Your task to perform on an android device: open app "Messenger Lite" (install if not already installed) and enter user name: "cataclysmic@outlook.com" and password: "victoriously" Image 0: 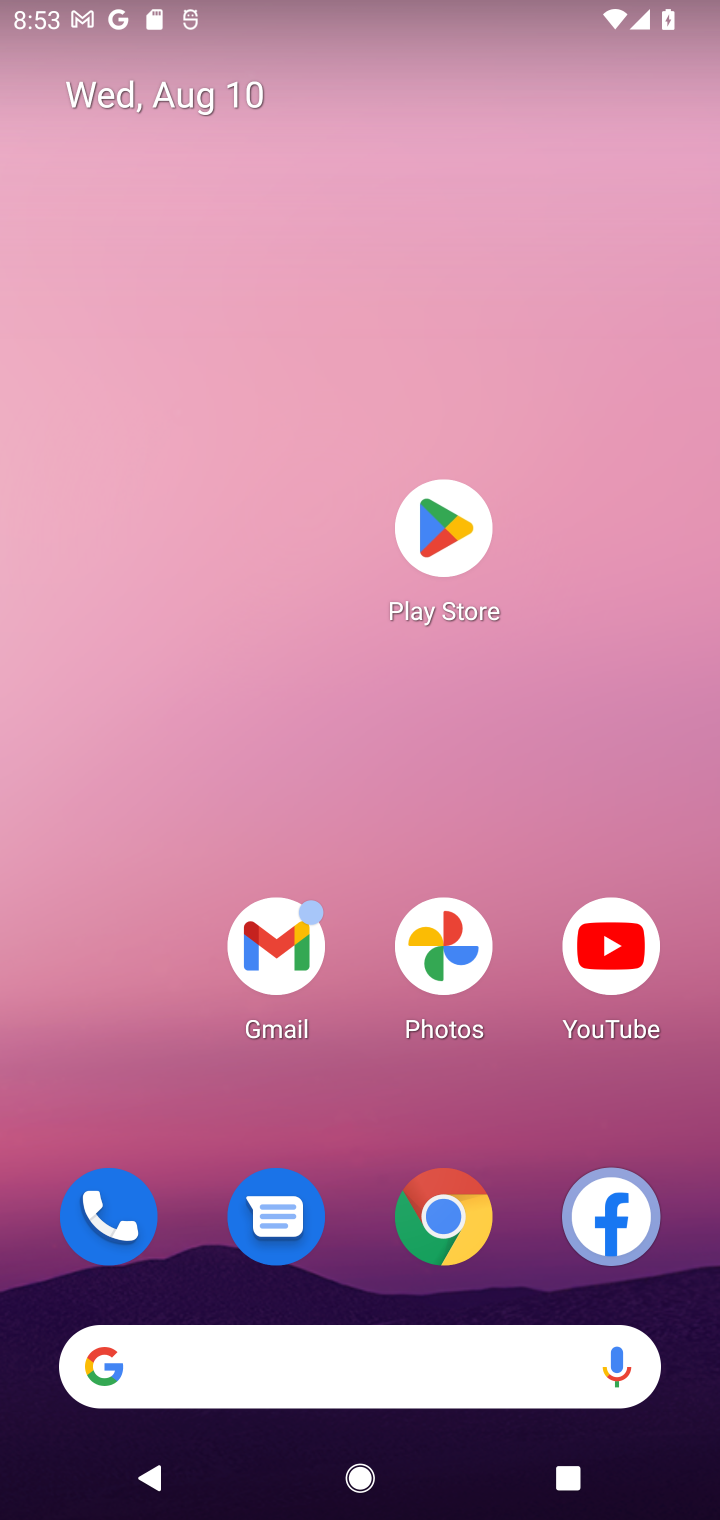
Step 0: press home button
Your task to perform on an android device: open app "Messenger Lite" (install if not already installed) and enter user name: "cataclysmic@outlook.com" and password: "victoriously" Image 1: 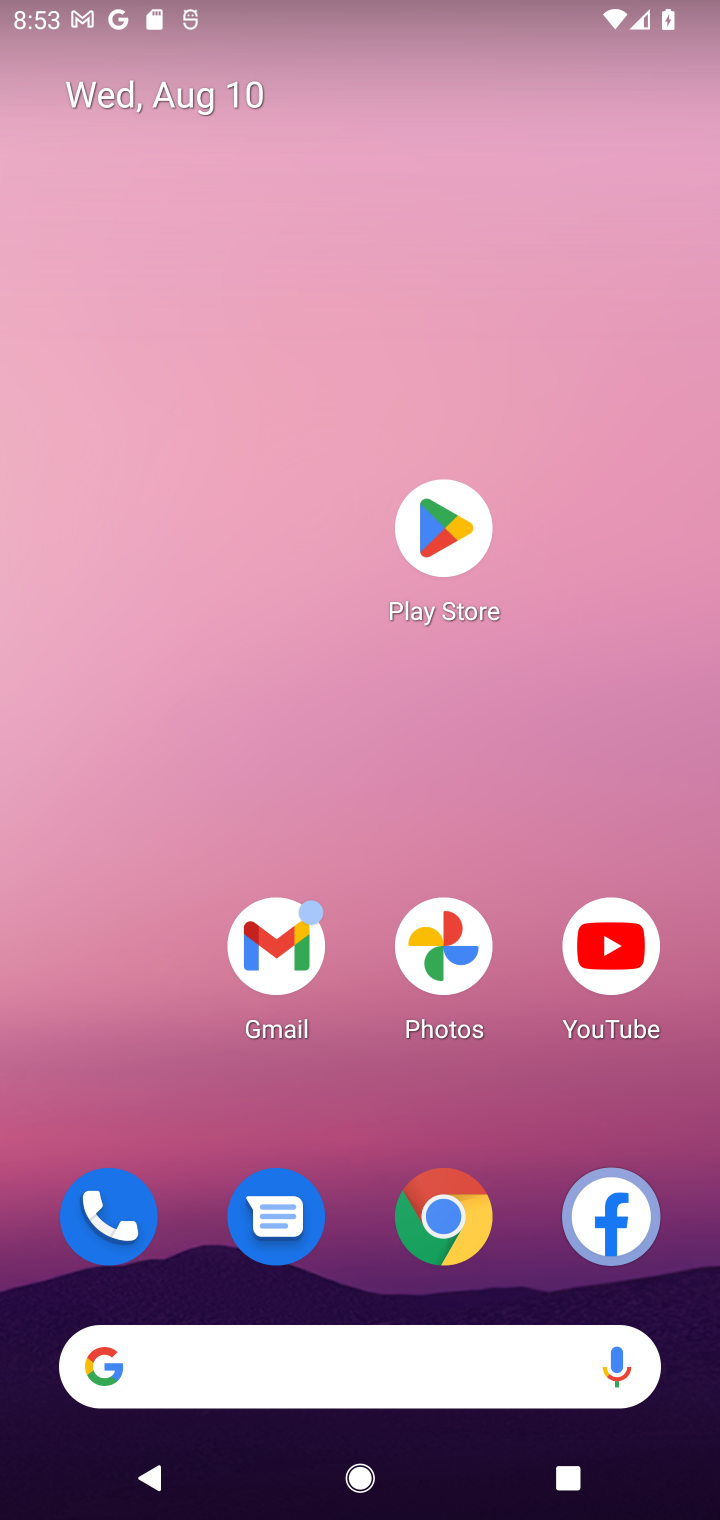
Step 1: click (450, 526)
Your task to perform on an android device: open app "Messenger Lite" (install if not already installed) and enter user name: "cataclysmic@outlook.com" and password: "victoriously" Image 2: 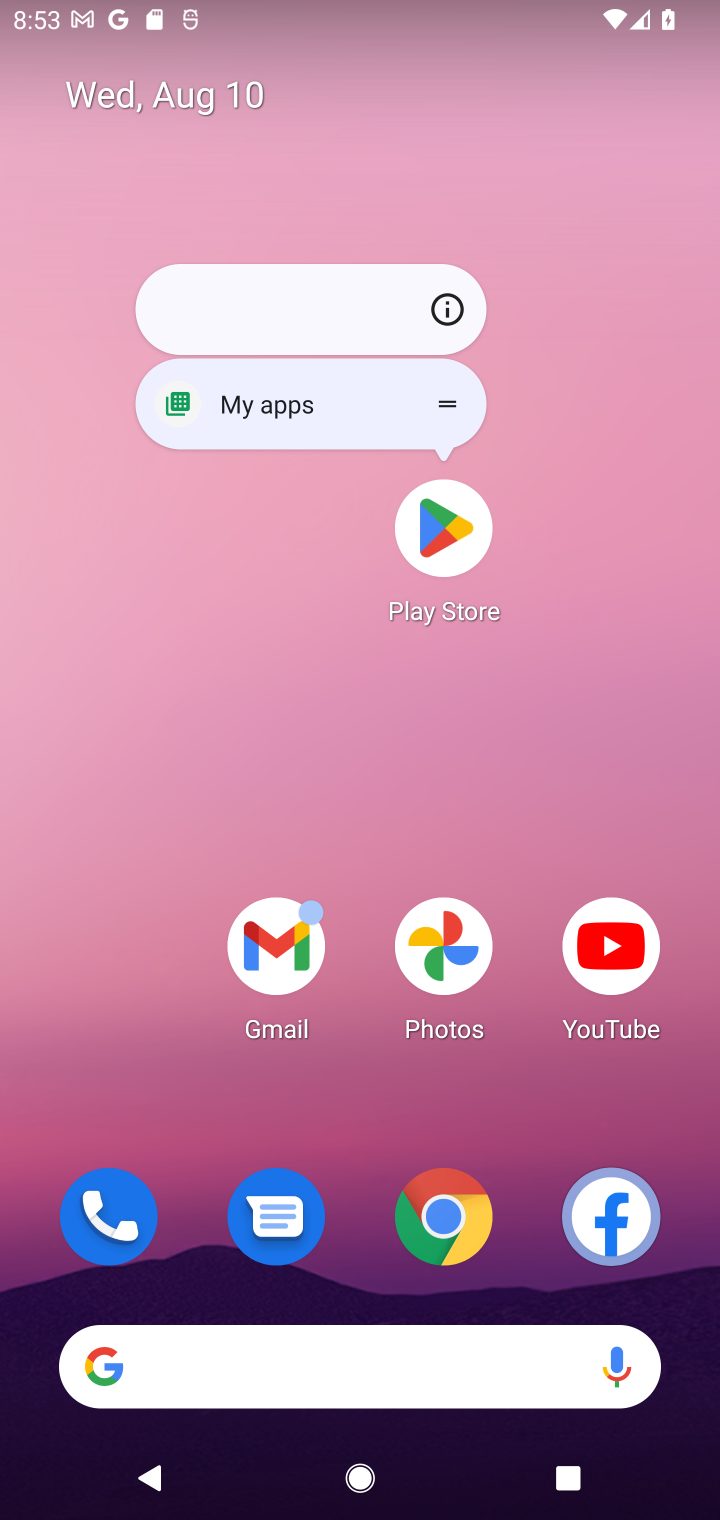
Step 2: click (450, 533)
Your task to perform on an android device: open app "Messenger Lite" (install if not already installed) and enter user name: "cataclysmic@outlook.com" and password: "victoriously" Image 3: 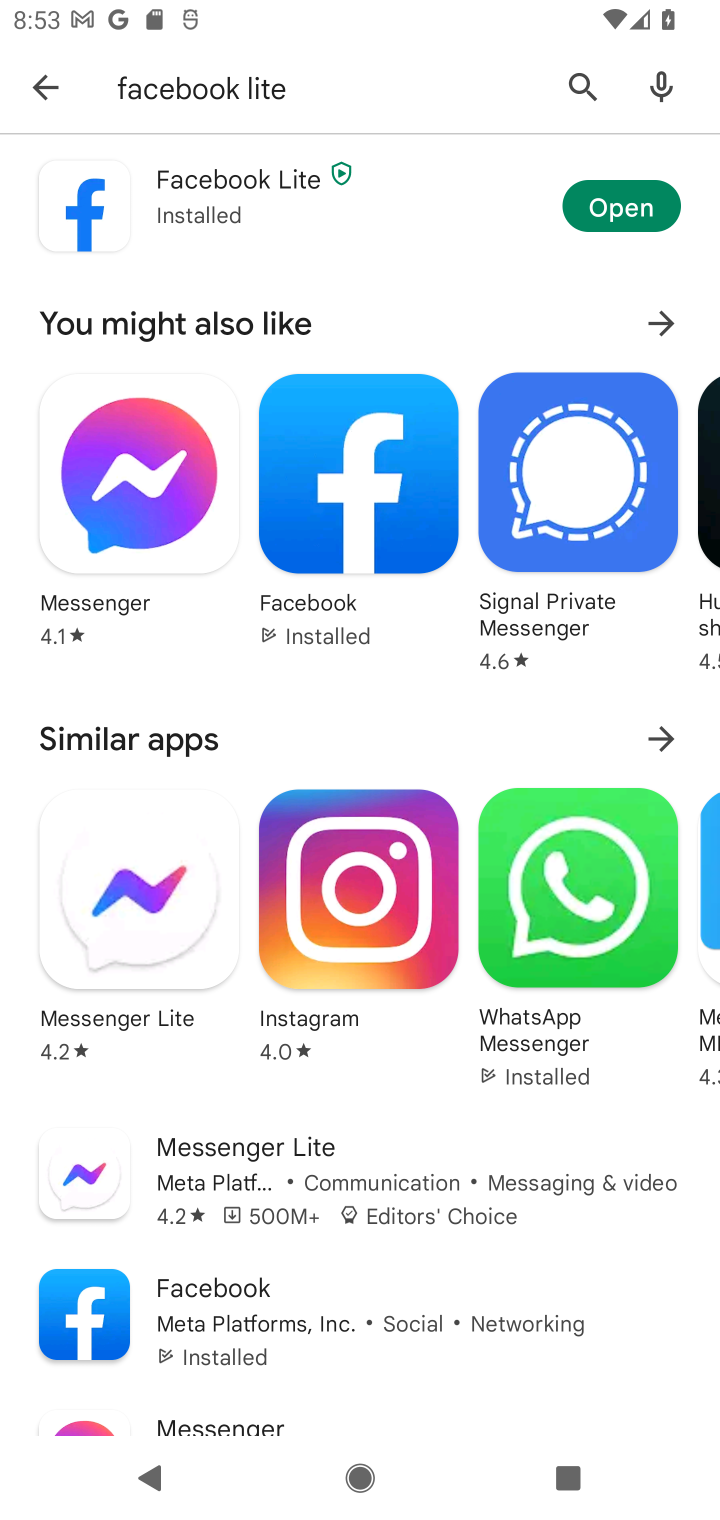
Step 3: click (572, 68)
Your task to perform on an android device: open app "Messenger Lite" (install if not already installed) and enter user name: "cataclysmic@outlook.com" and password: "victoriously" Image 4: 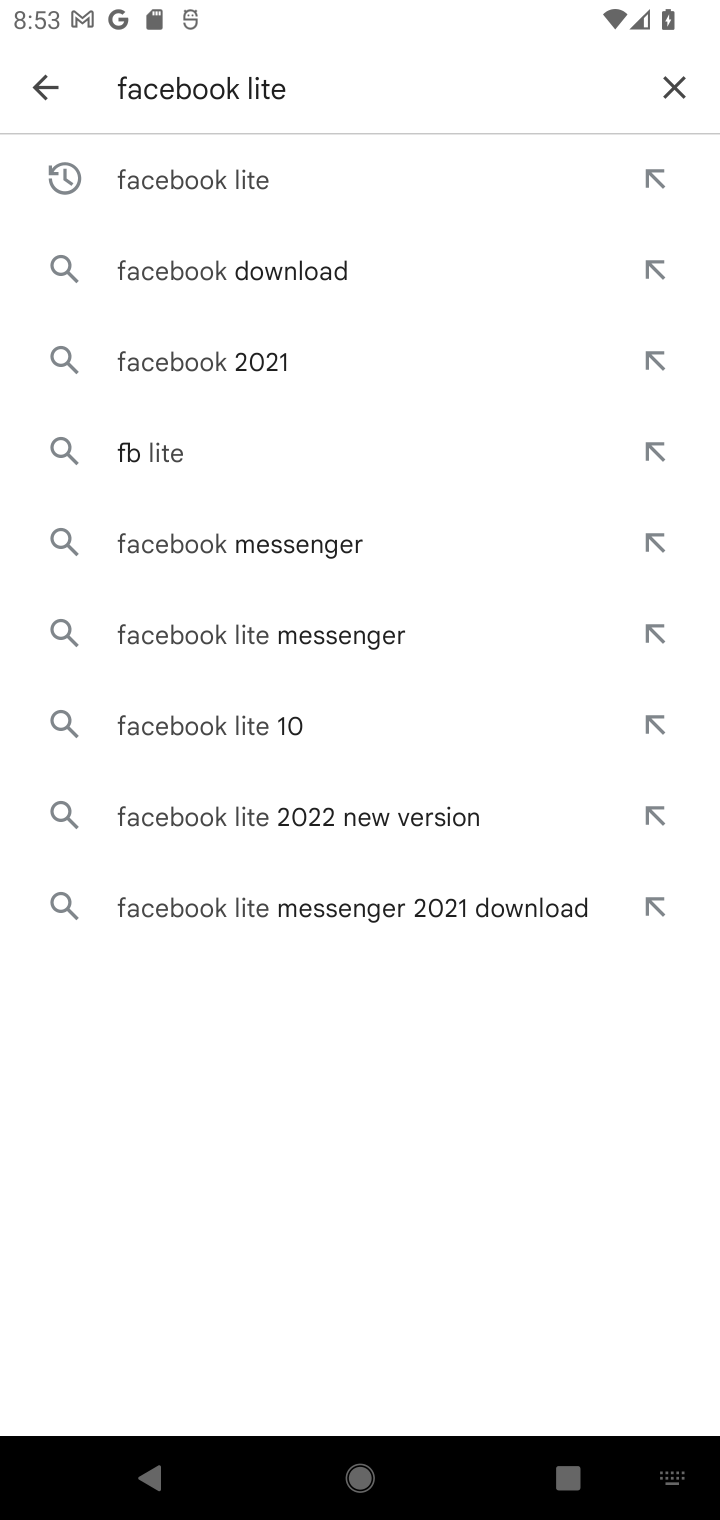
Step 4: click (668, 82)
Your task to perform on an android device: open app "Messenger Lite" (install if not already installed) and enter user name: "cataclysmic@outlook.com" and password: "victoriously" Image 5: 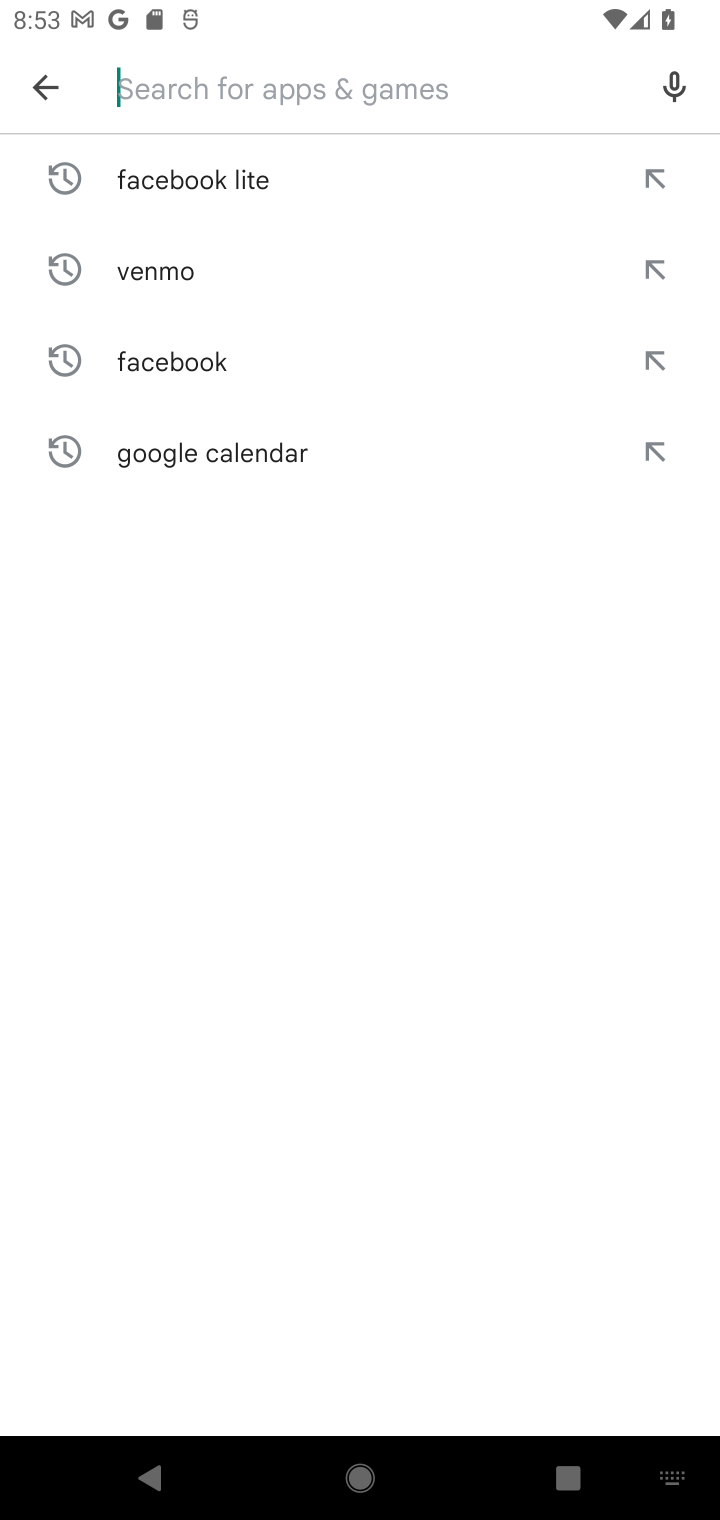
Step 5: type "Messenger Lite"
Your task to perform on an android device: open app "Messenger Lite" (install if not already installed) and enter user name: "cataclysmic@outlook.com" and password: "victoriously" Image 6: 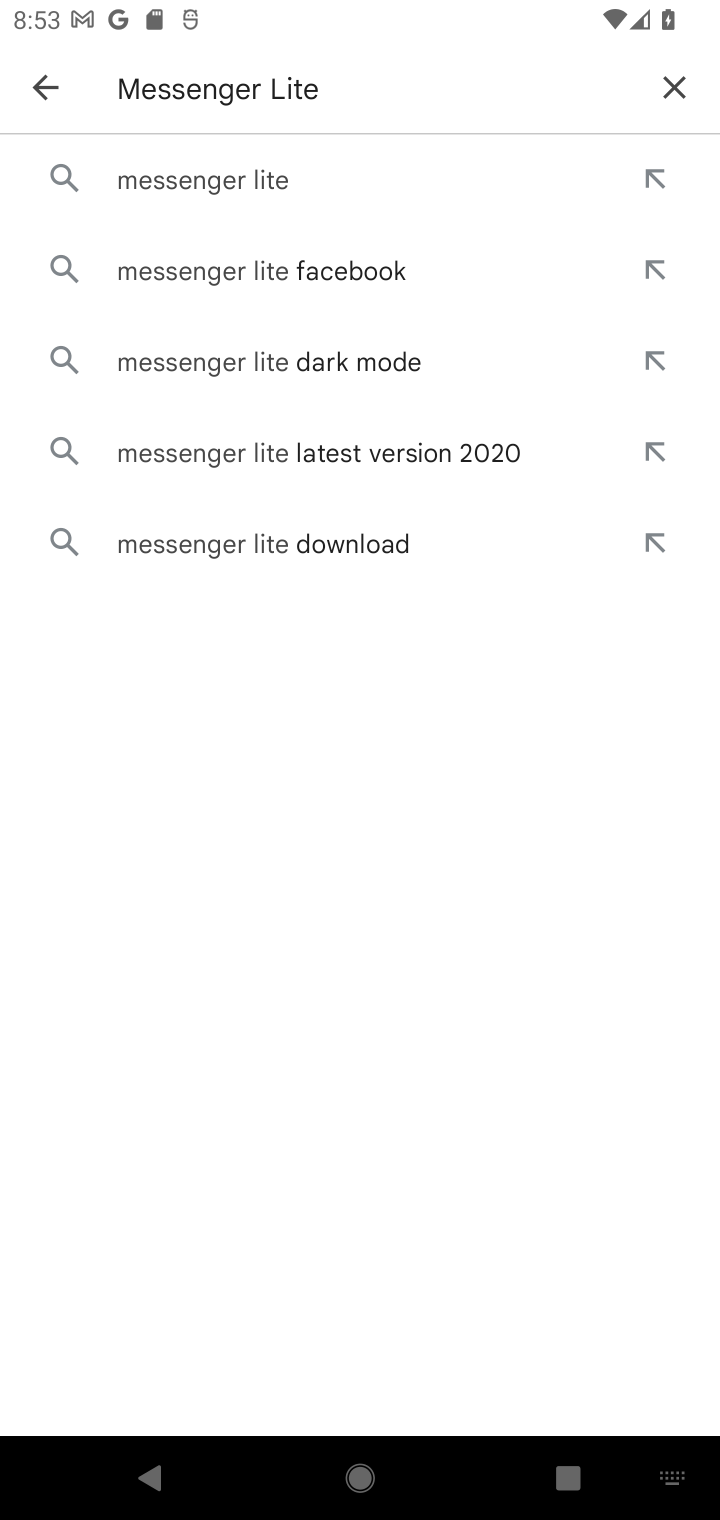
Step 6: click (269, 176)
Your task to perform on an android device: open app "Messenger Lite" (install if not already installed) and enter user name: "cataclysmic@outlook.com" and password: "victoriously" Image 7: 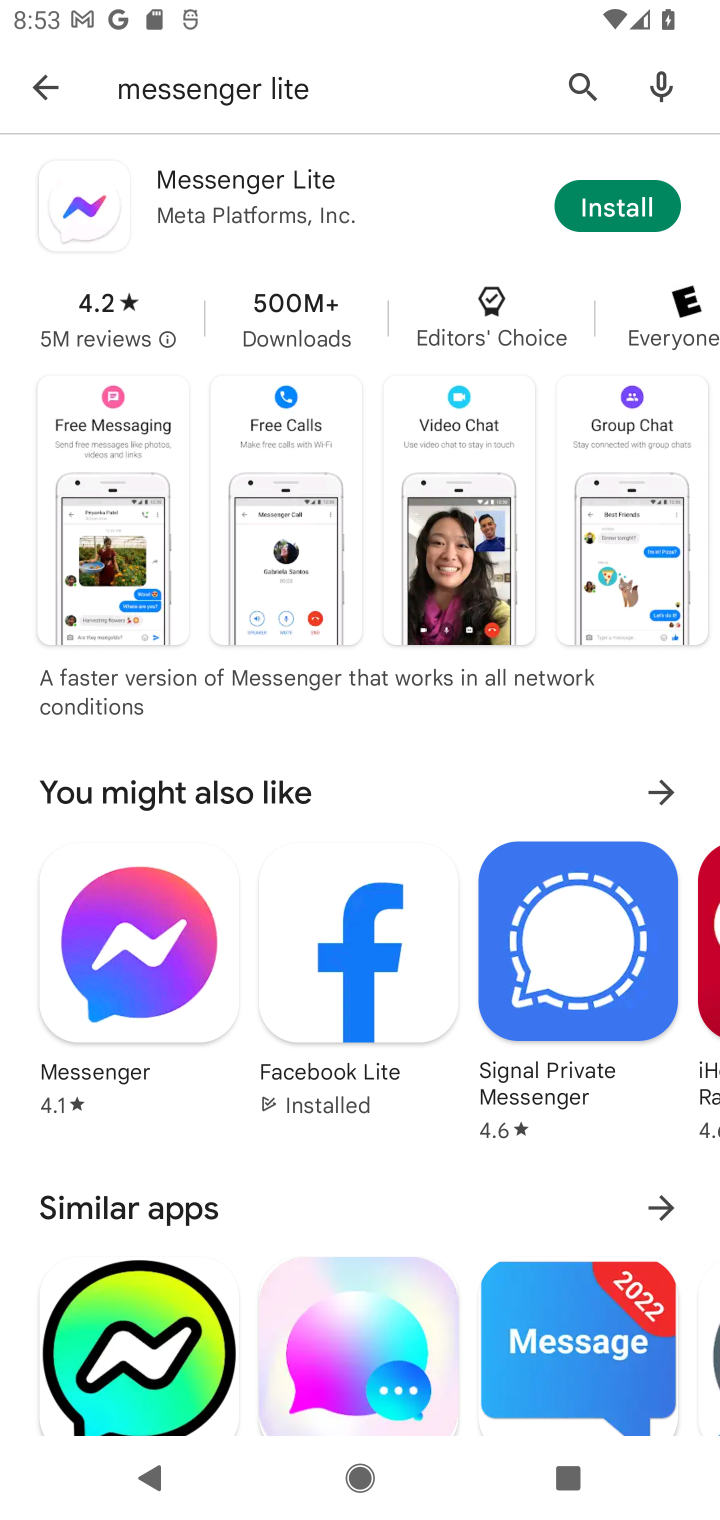
Step 7: click (585, 205)
Your task to perform on an android device: open app "Messenger Lite" (install if not already installed) and enter user name: "cataclysmic@outlook.com" and password: "victoriously" Image 8: 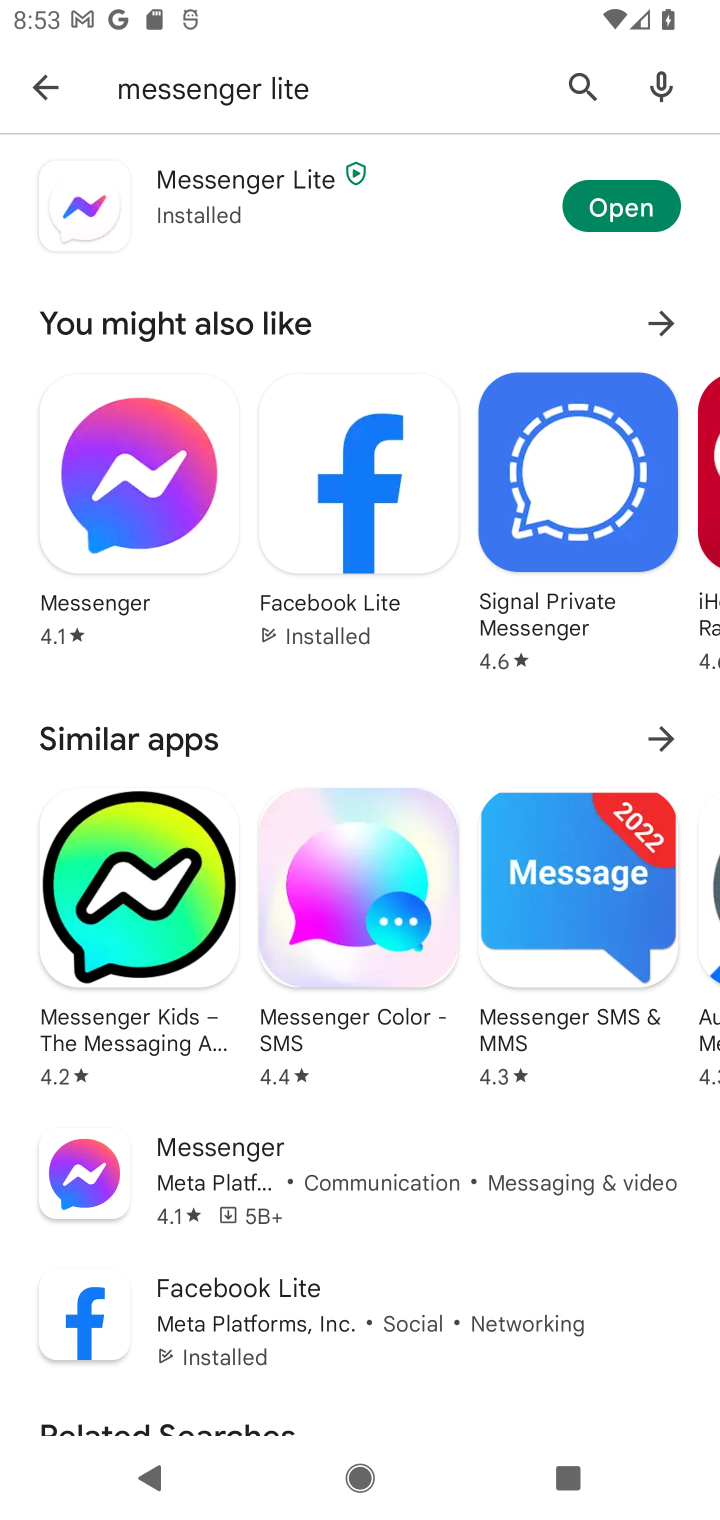
Step 8: click (597, 215)
Your task to perform on an android device: open app "Messenger Lite" (install if not already installed) and enter user name: "cataclysmic@outlook.com" and password: "victoriously" Image 9: 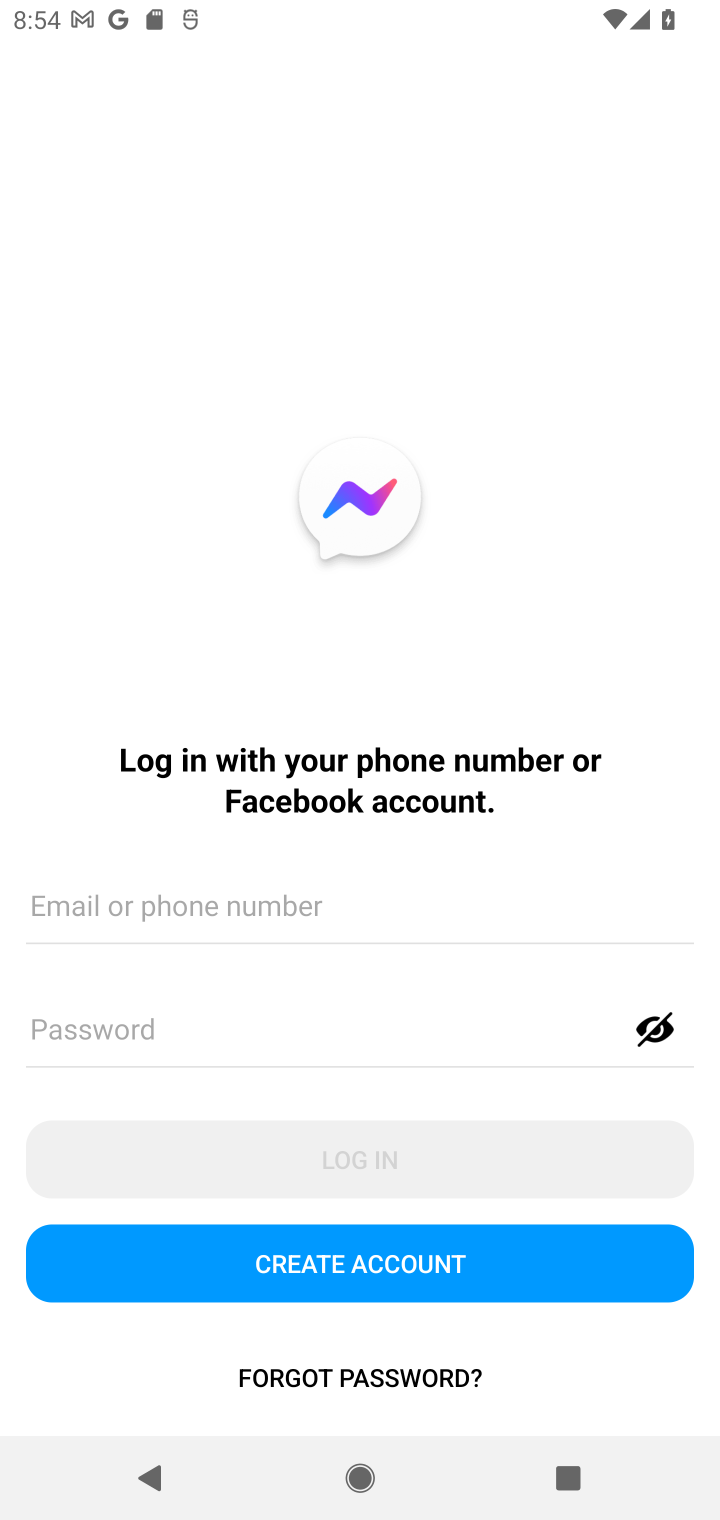
Step 9: click (194, 892)
Your task to perform on an android device: open app "Messenger Lite" (install if not already installed) and enter user name: "cataclysmic@outlook.com" and password: "victoriously" Image 10: 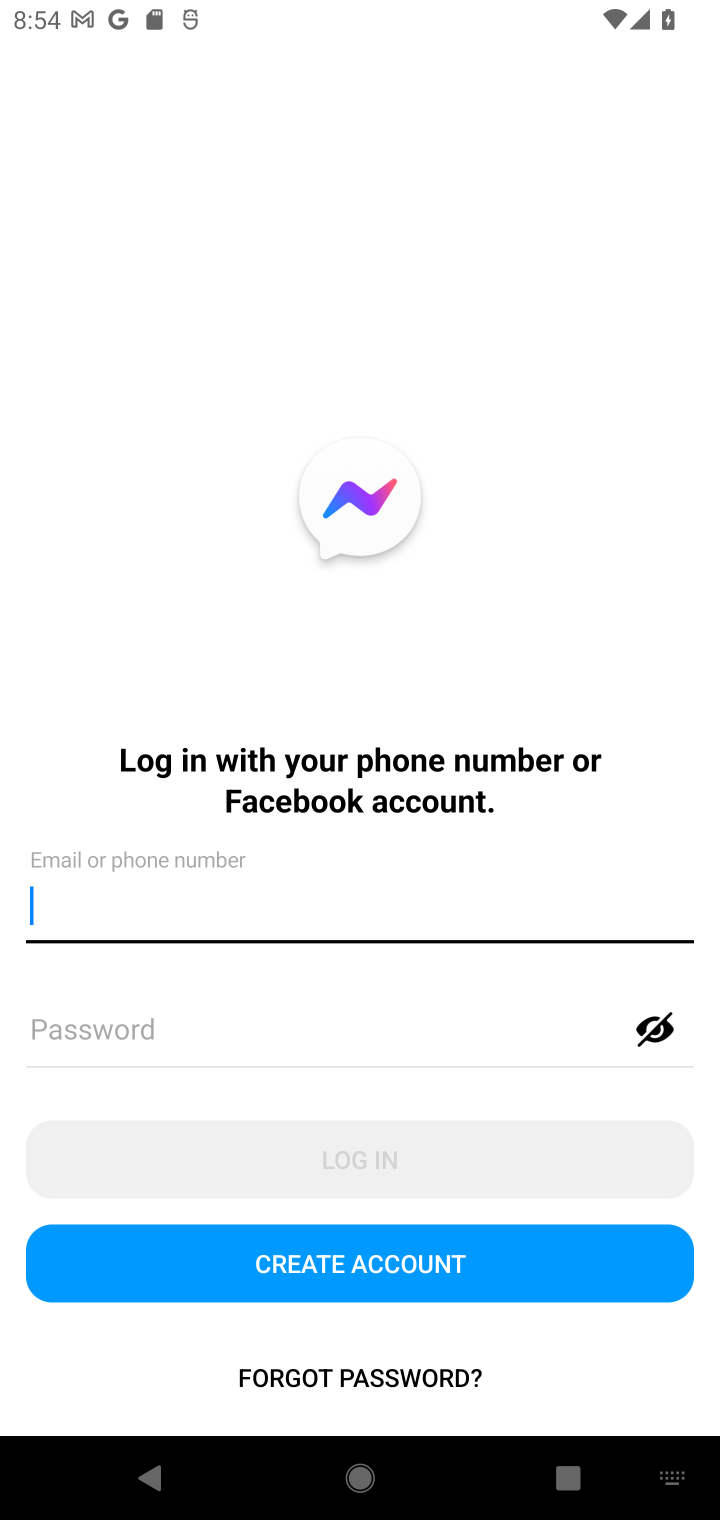
Step 10: type "cataclysmic@outlook.com"
Your task to perform on an android device: open app "Messenger Lite" (install if not already installed) and enter user name: "cataclysmic@outlook.com" and password: "victoriously" Image 11: 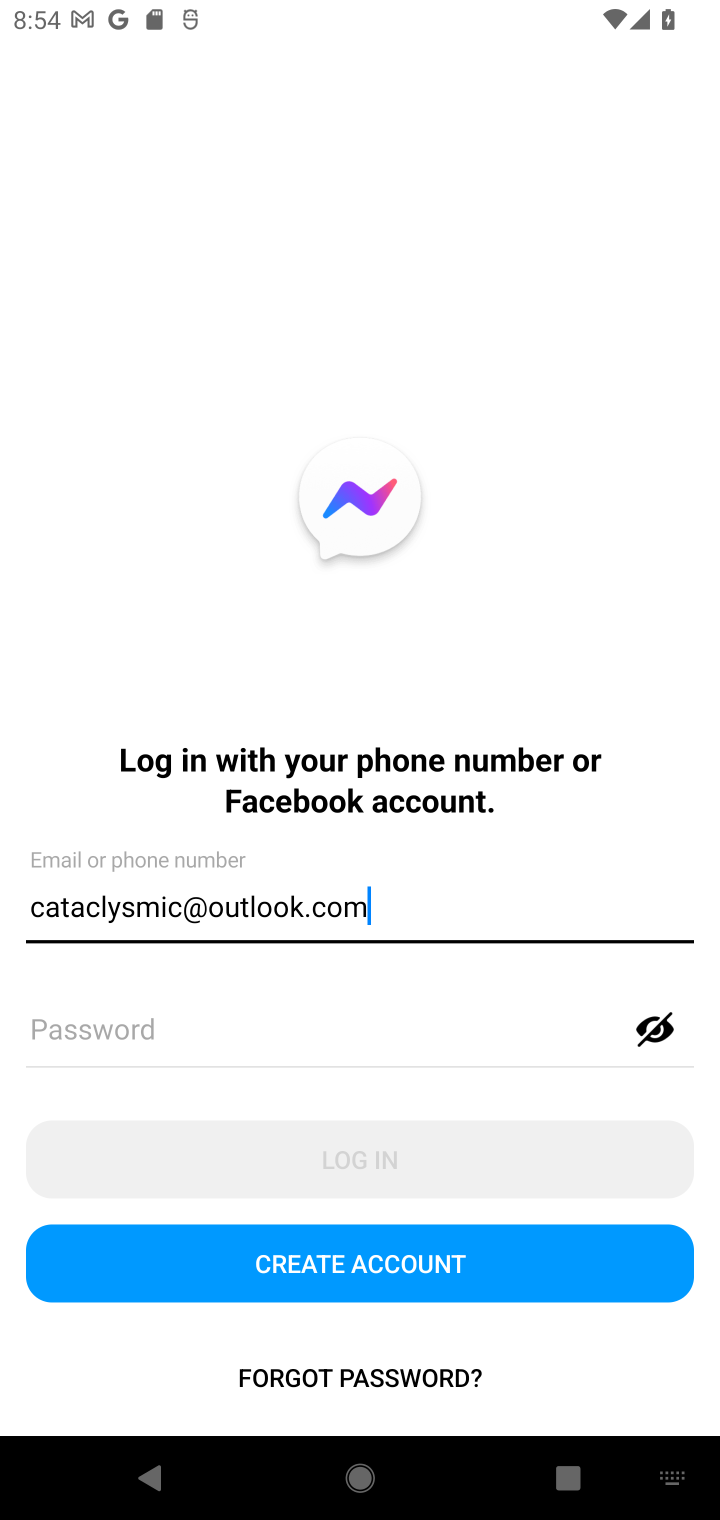
Step 11: click (107, 1012)
Your task to perform on an android device: open app "Messenger Lite" (install if not already installed) and enter user name: "cataclysmic@outlook.com" and password: "victoriously" Image 12: 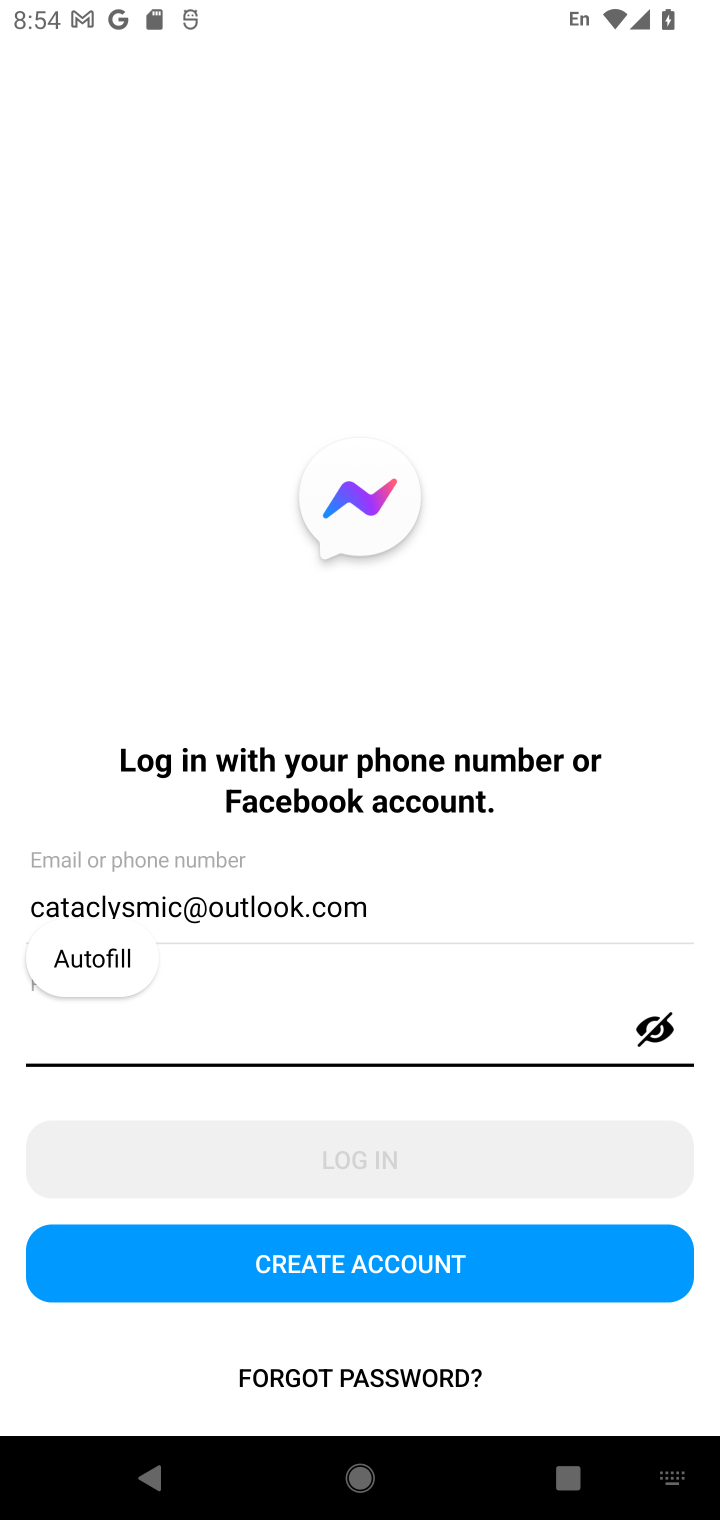
Step 12: type "victoriously"
Your task to perform on an android device: open app "Messenger Lite" (install if not already installed) and enter user name: "cataclysmic@outlook.com" and password: "victoriously" Image 13: 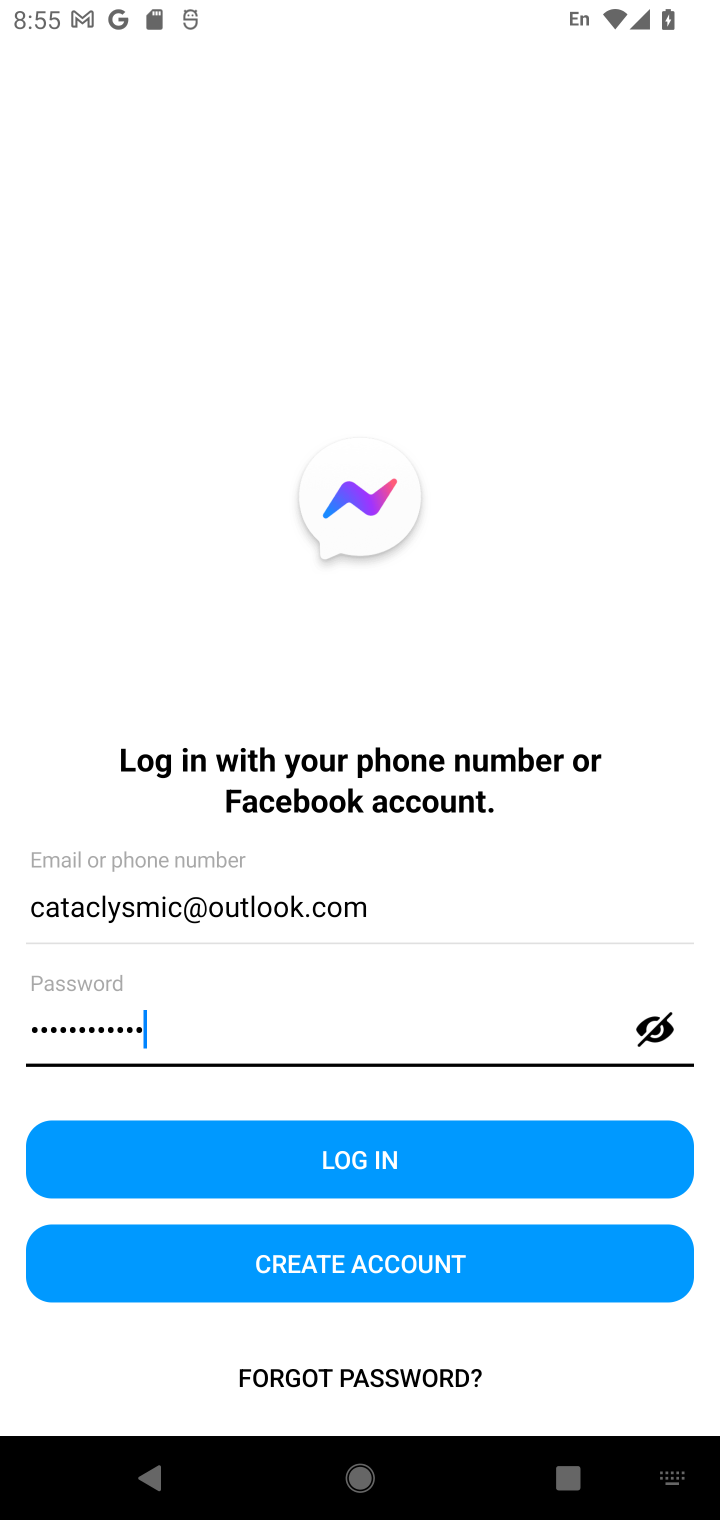
Step 13: task complete